Your task to perform on an android device: Go to CNN.com Image 0: 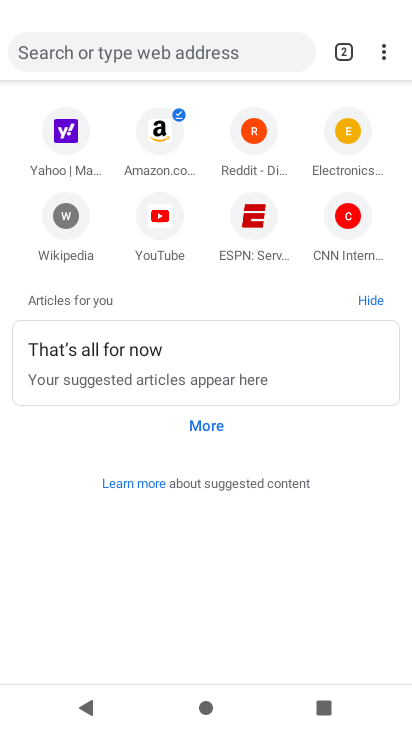
Step 0: press home button
Your task to perform on an android device: Go to CNN.com Image 1: 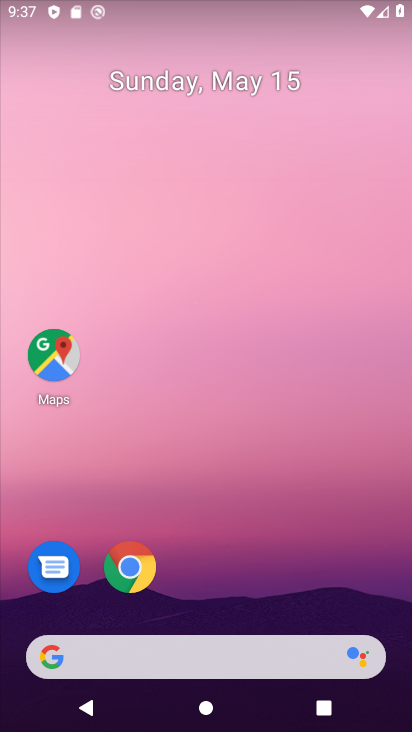
Step 1: drag from (236, 543) to (228, 107)
Your task to perform on an android device: Go to CNN.com Image 2: 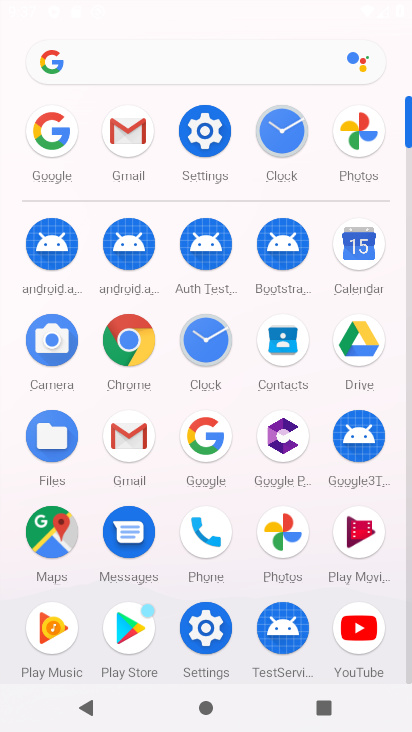
Step 2: click (51, 128)
Your task to perform on an android device: Go to CNN.com Image 3: 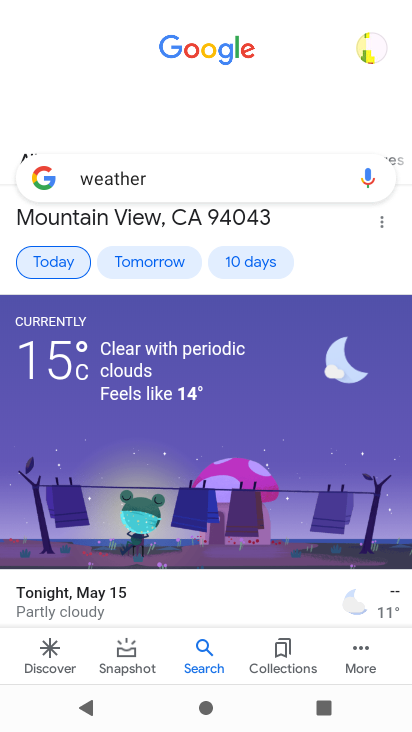
Step 3: click (216, 166)
Your task to perform on an android device: Go to CNN.com Image 4: 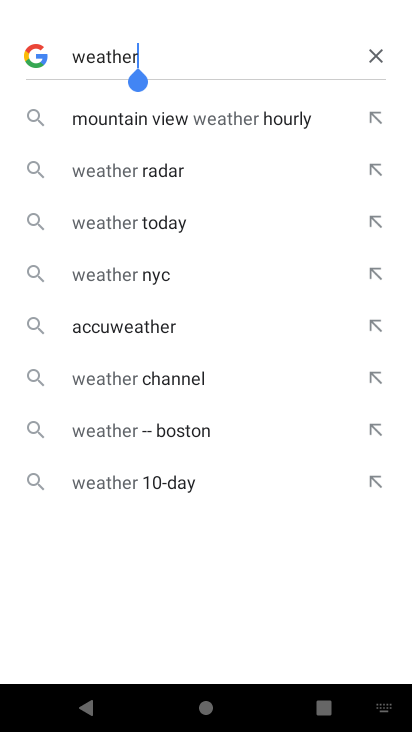
Step 4: click (364, 61)
Your task to perform on an android device: Go to CNN.com Image 5: 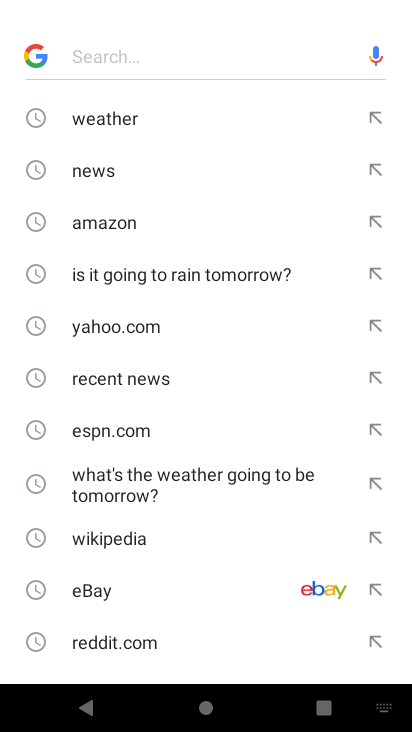
Step 5: drag from (159, 611) to (196, 297)
Your task to perform on an android device: Go to CNN.com Image 6: 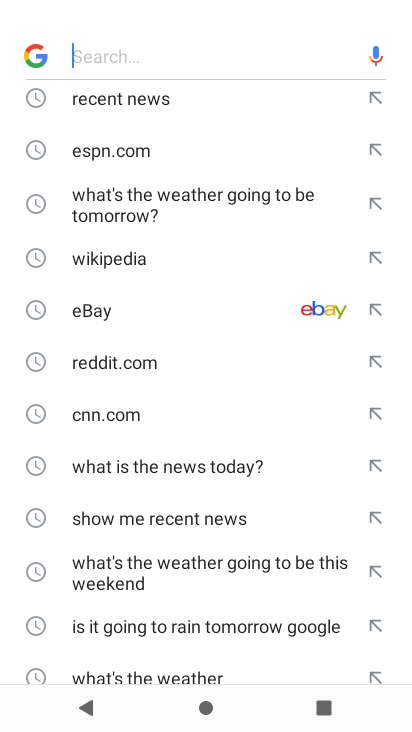
Step 6: click (111, 417)
Your task to perform on an android device: Go to CNN.com Image 7: 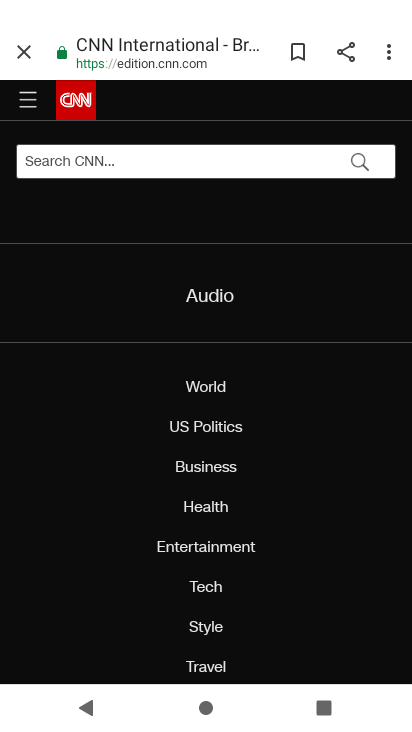
Step 7: task complete